Your task to perform on an android device: Go to accessibility settings Image 0: 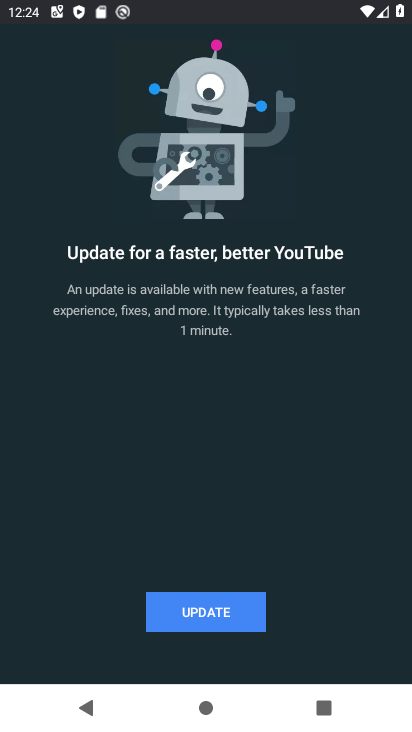
Step 0: press back button
Your task to perform on an android device: Go to accessibility settings Image 1: 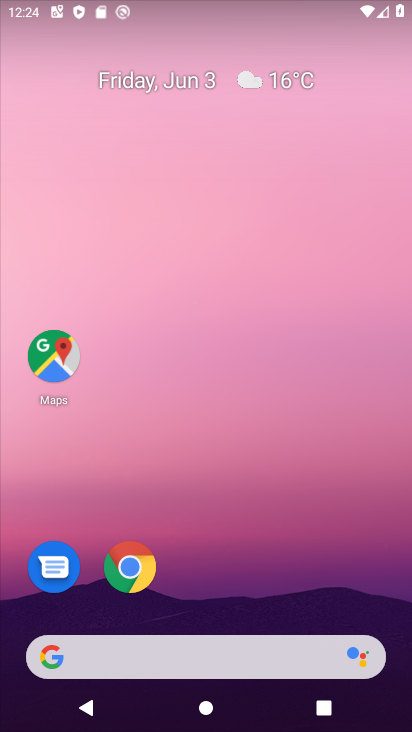
Step 1: drag from (273, 583) to (249, 333)
Your task to perform on an android device: Go to accessibility settings Image 2: 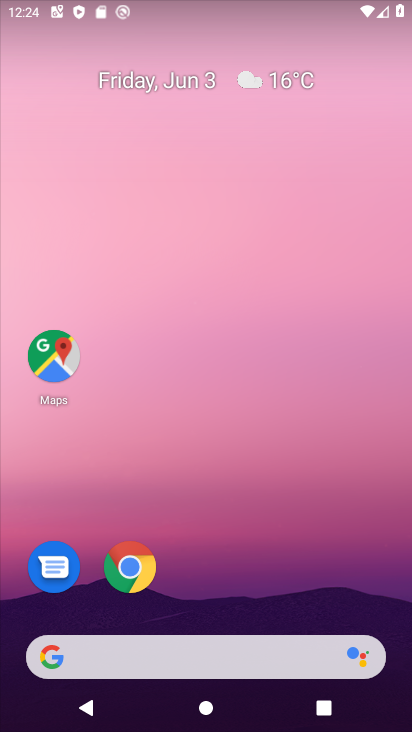
Step 2: drag from (233, 581) to (283, 129)
Your task to perform on an android device: Go to accessibility settings Image 3: 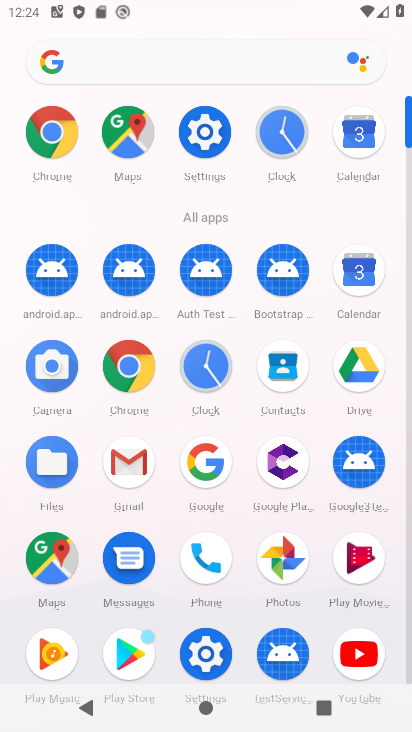
Step 3: click (206, 623)
Your task to perform on an android device: Go to accessibility settings Image 4: 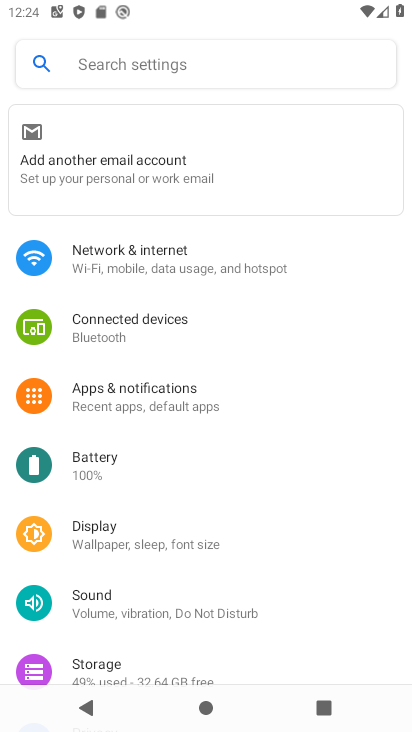
Step 4: drag from (204, 619) to (247, 297)
Your task to perform on an android device: Go to accessibility settings Image 5: 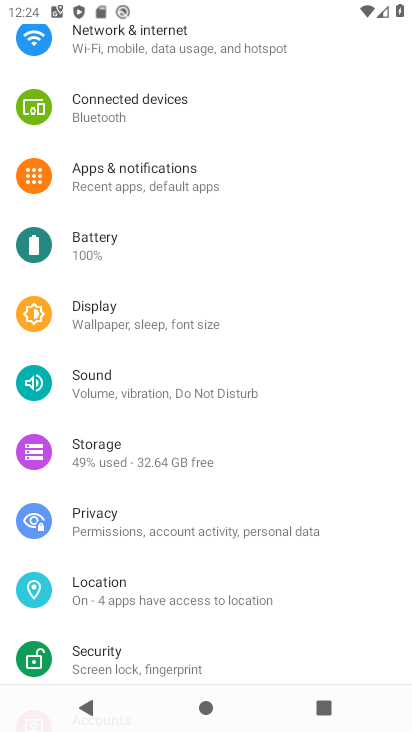
Step 5: drag from (192, 613) to (204, 470)
Your task to perform on an android device: Go to accessibility settings Image 6: 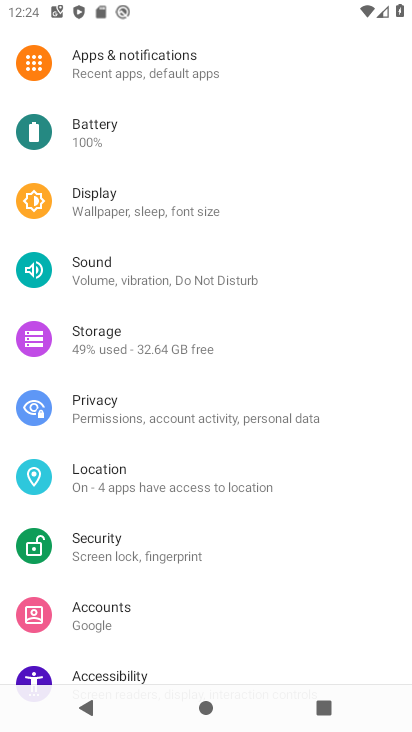
Step 6: click (173, 675)
Your task to perform on an android device: Go to accessibility settings Image 7: 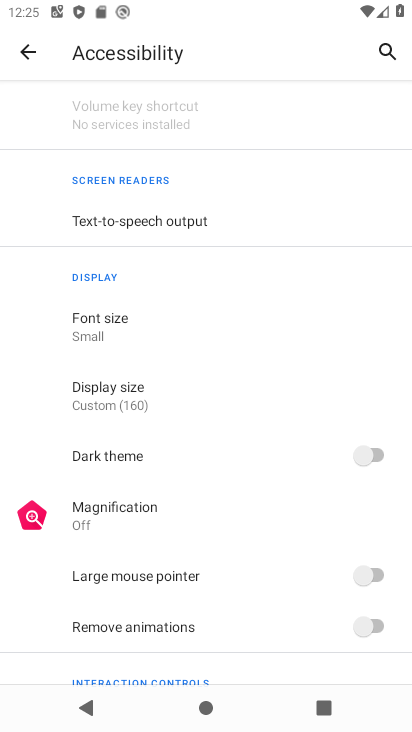
Step 7: task complete